Your task to perform on an android device: Open accessibility settings Image 0: 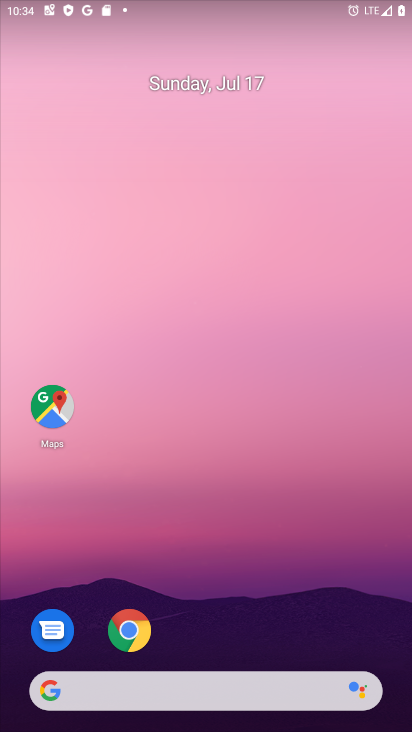
Step 0: press home button
Your task to perform on an android device: Open accessibility settings Image 1: 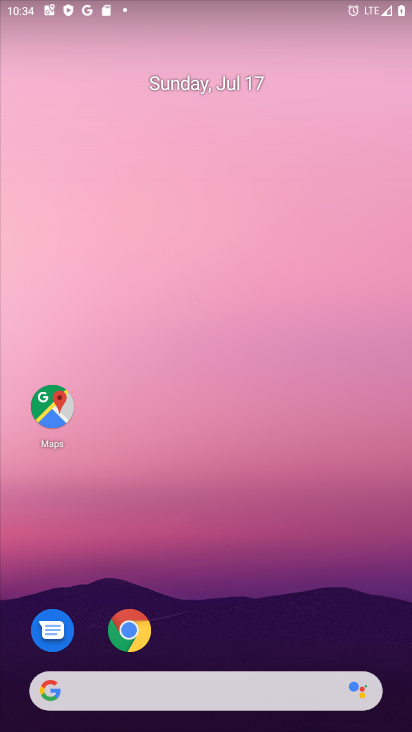
Step 1: drag from (238, 649) to (259, 46)
Your task to perform on an android device: Open accessibility settings Image 2: 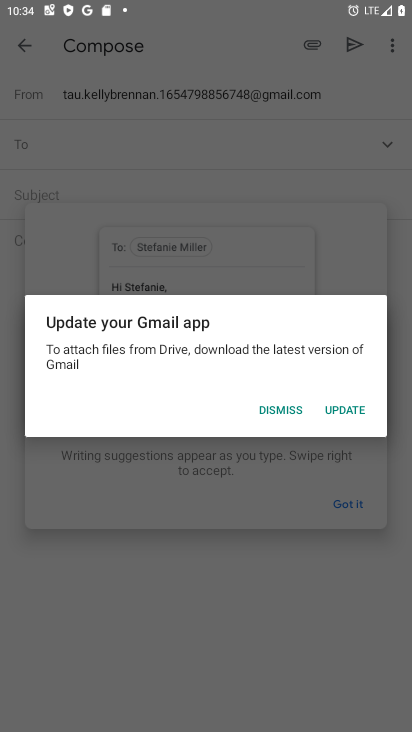
Step 2: click (283, 408)
Your task to perform on an android device: Open accessibility settings Image 3: 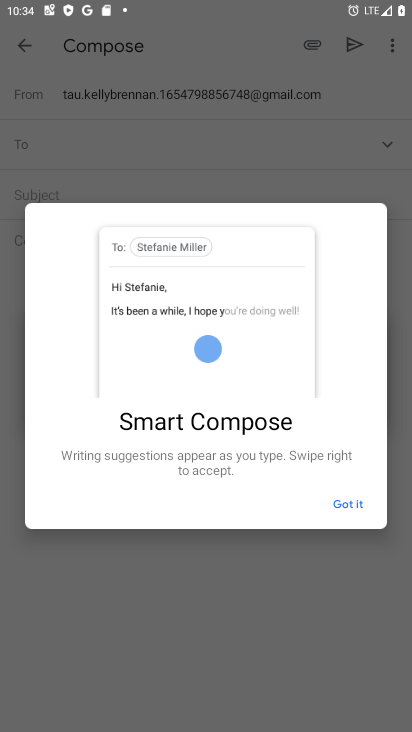
Step 3: click (341, 503)
Your task to perform on an android device: Open accessibility settings Image 4: 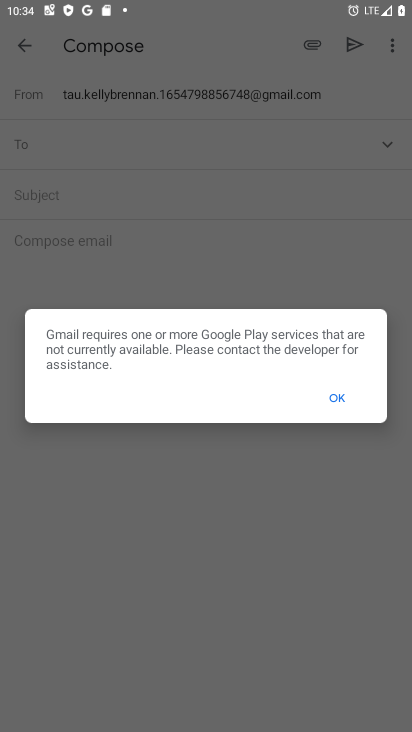
Step 4: press home button
Your task to perform on an android device: Open accessibility settings Image 5: 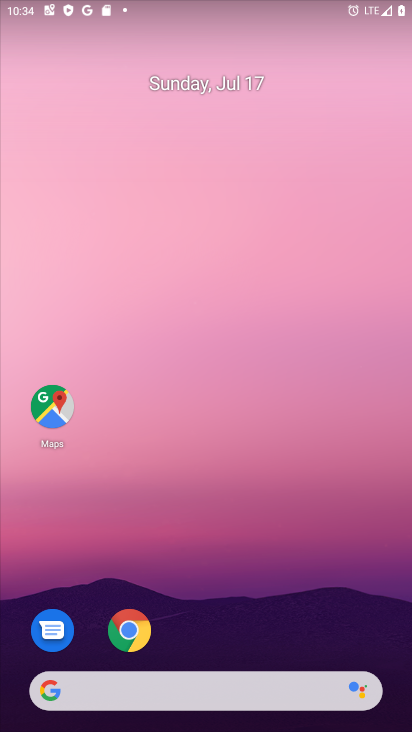
Step 5: drag from (210, 631) to (155, 46)
Your task to perform on an android device: Open accessibility settings Image 6: 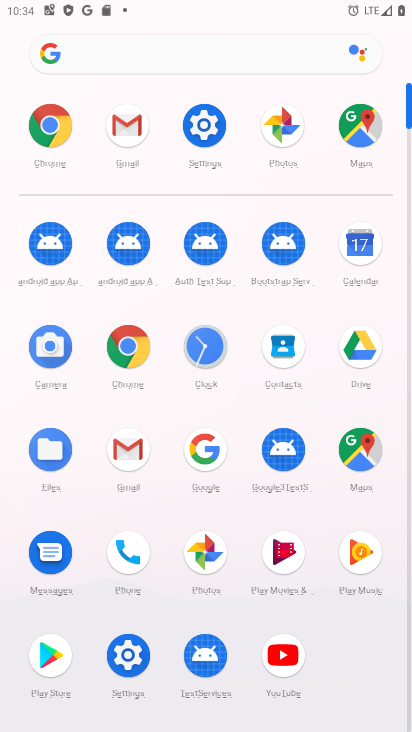
Step 6: click (204, 121)
Your task to perform on an android device: Open accessibility settings Image 7: 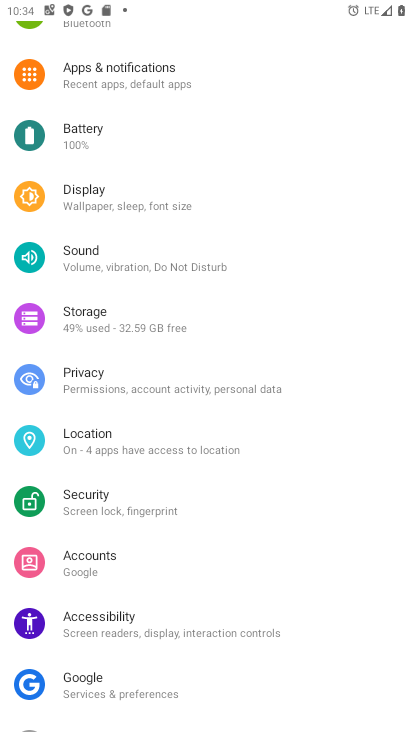
Step 7: click (147, 619)
Your task to perform on an android device: Open accessibility settings Image 8: 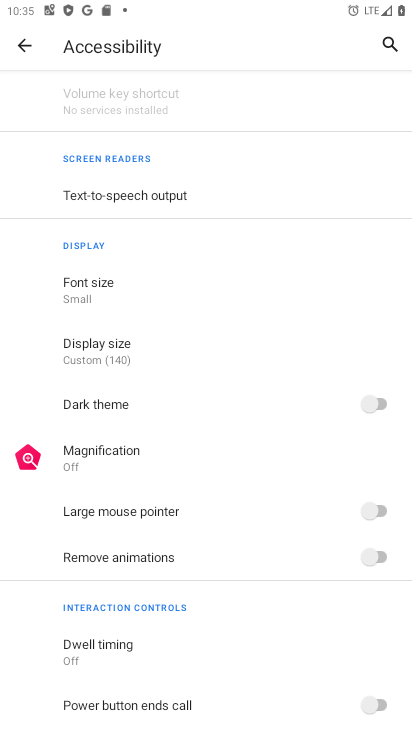
Step 8: task complete